Your task to perform on an android device: Go to Amazon Image 0: 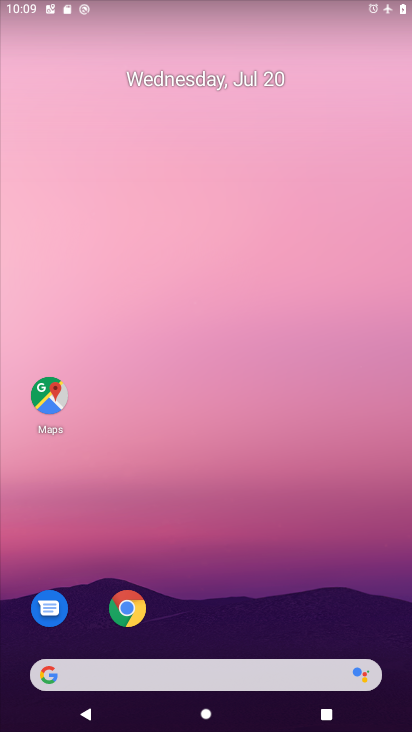
Step 0: drag from (248, 603) to (241, 283)
Your task to perform on an android device: Go to Amazon Image 1: 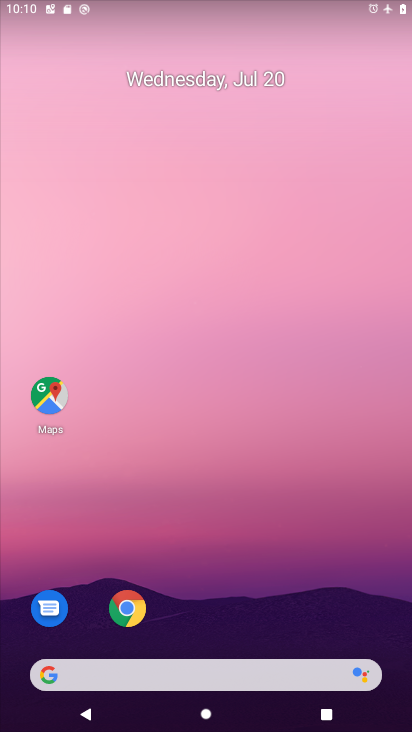
Step 1: drag from (213, 637) to (213, 213)
Your task to perform on an android device: Go to Amazon Image 2: 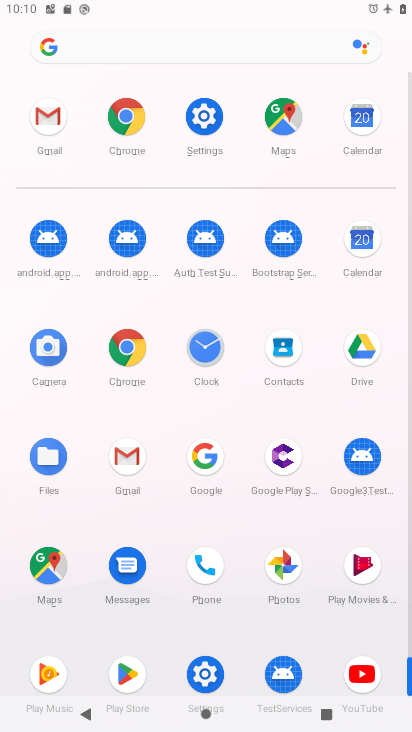
Step 2: click (130, 118)
Your task to perform on an android device: Go to Amazon Image 3: 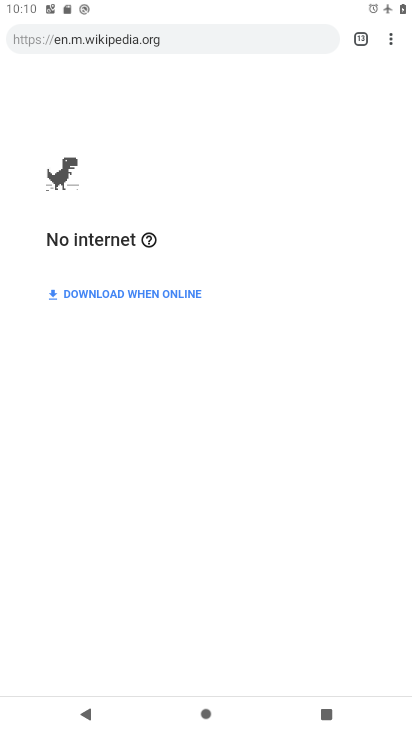
Step 3: click (392, 35)
Your task to perform on an android device: Go to Amazon Image 4: 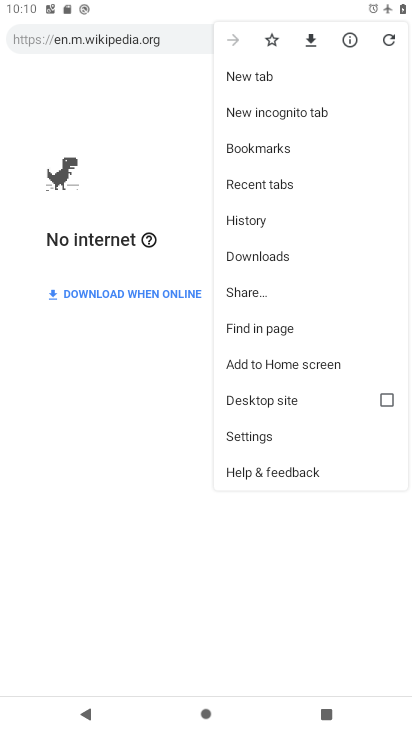
Step 4: click (276, 66)
Your task to perform on an android device: Go to Amazon Image 5: 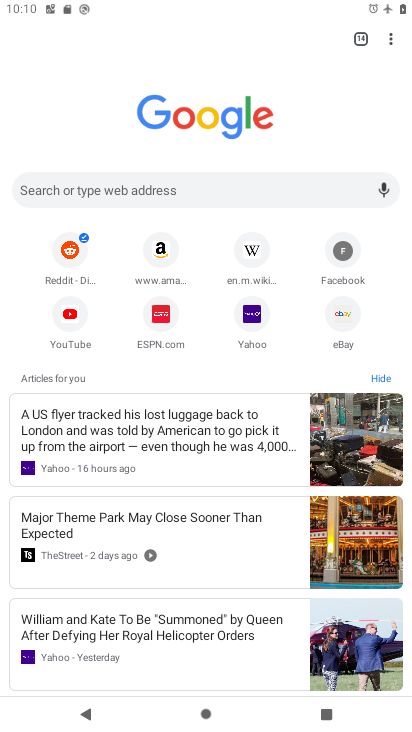
Step 5: click (162, 243)
Your task to perform on an android device: Go to Amazon Image 6: 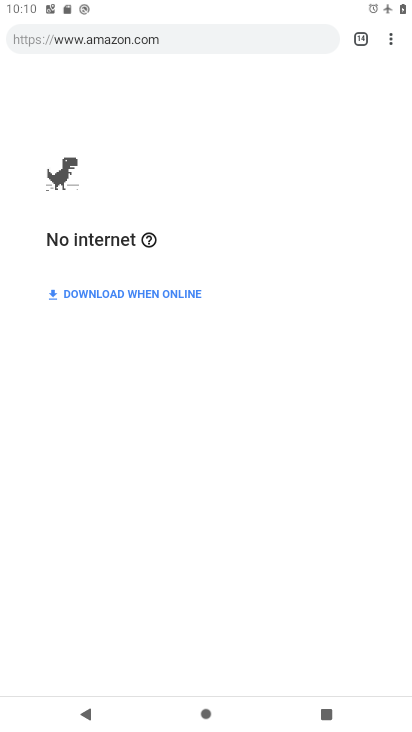
Step 6: task complete